Your task to perform on an android device: Turn on the flashlight Image 0: 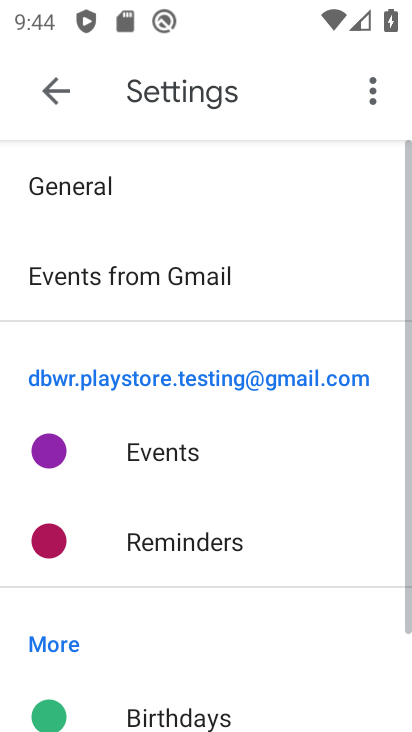
Step 0: drag from (234, 552) to (280, 99)
Your task to perform on an android device: Turn on the flashlight Image 1: 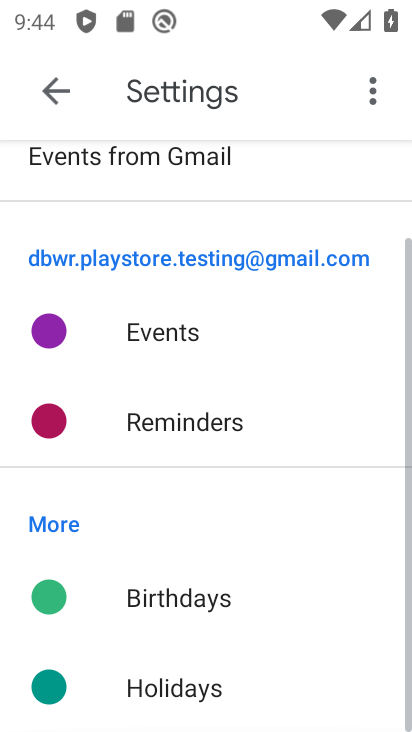
Step 1: press home button
Your task to perform on an android device: Turn on the flashlight Image 2: 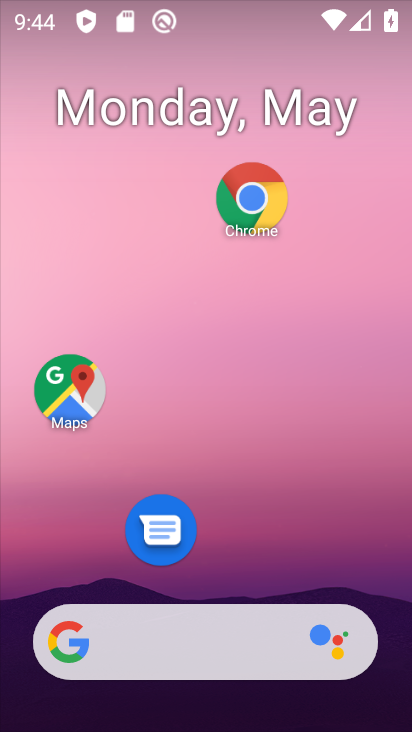
Step 2: drag from (245, 455) to (290, 123)
Your task to perform on an android device: Turn on the flashlight Image 3: 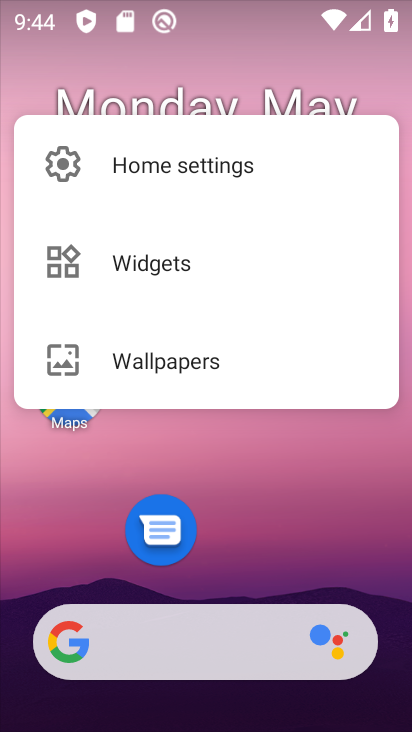
Step 3: click (183, 590)
Your task to perform on an android device: Turn on the flashlight Image 4: 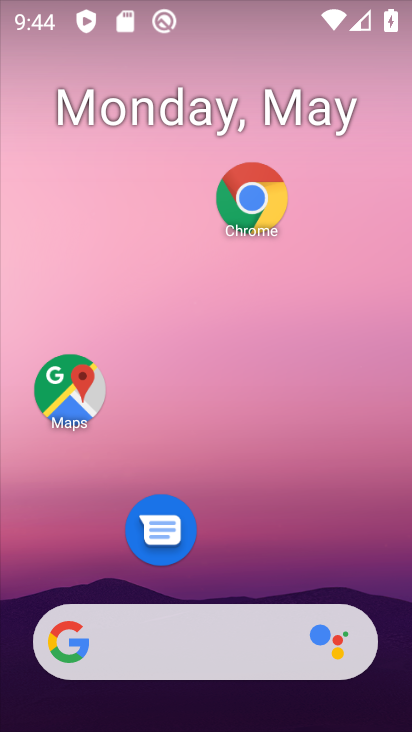
Step 4: task complete